Your task to perform on an android device: When is my next meeting? Image 0: 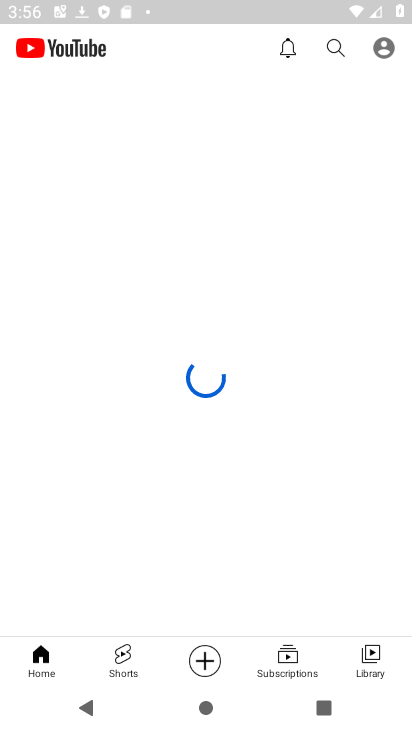
Step 0: press home button
Your task to perform on an android device: When is my next meeting? Image 1: 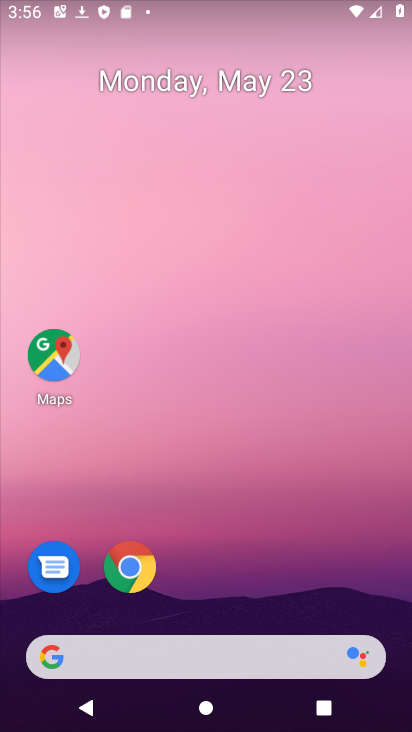
Step 1: drag from (395, 653) to (239, 53)
Your task to perform on an android device: When is my next meeting? Image 2: 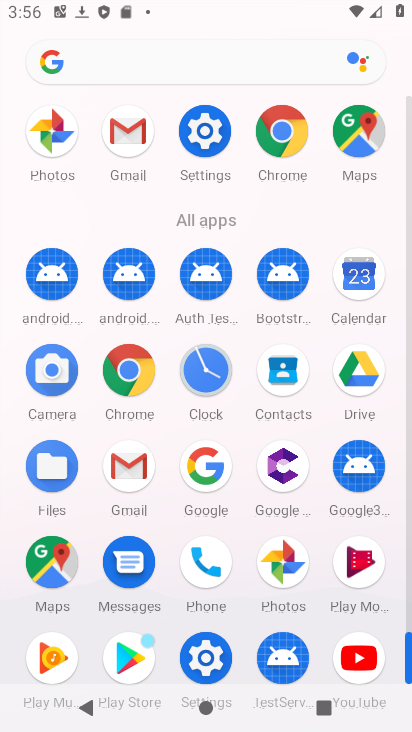
Step 2: click (352, 282)
Your task to perform on an android device: When is my next meeting? Image 3: 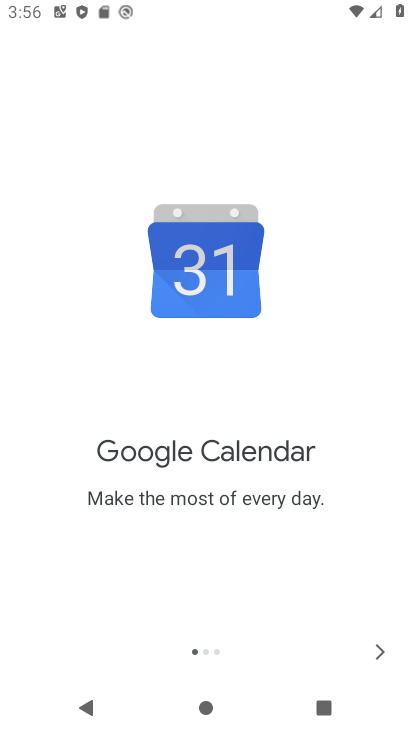
Step 3: click (372, 645)
Your task to perform on an android device: When is my next meeting? Image 4: 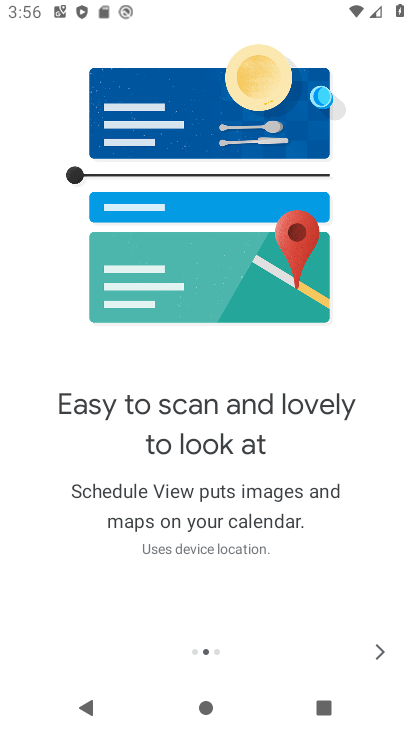
Step 4: click (372, 645)
Your task to perform on an android device: When is my next meeting? Image 5: 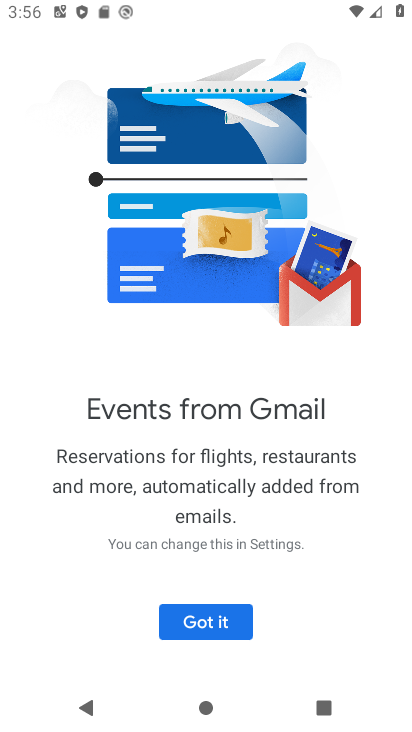
Step 5: click (205, 627)
Your task to perform on an android device: When is my next meeting? Image 6: 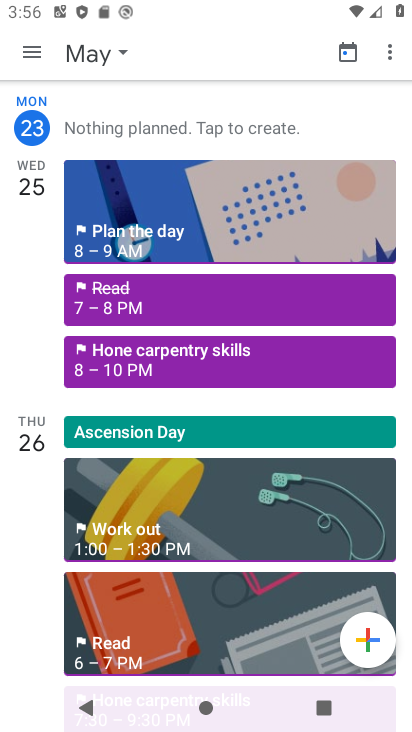
Step 6: click (36, 54)
Your task to perform on an android device: When is my next meeting? Image 7: 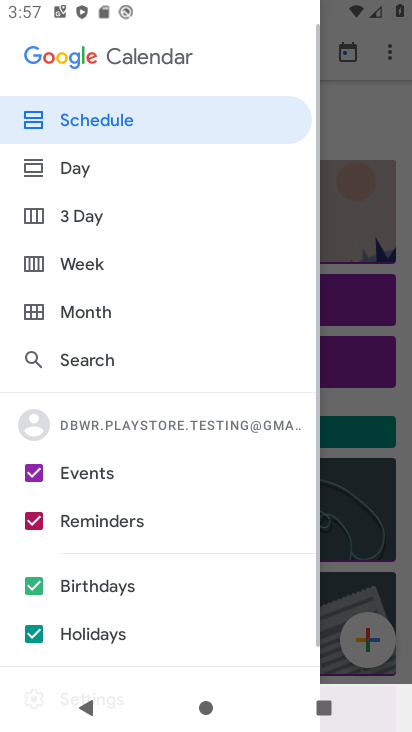
Step 7: click (87, 116)
Your task to perform on an android device: When is my next meeting? Image 8: 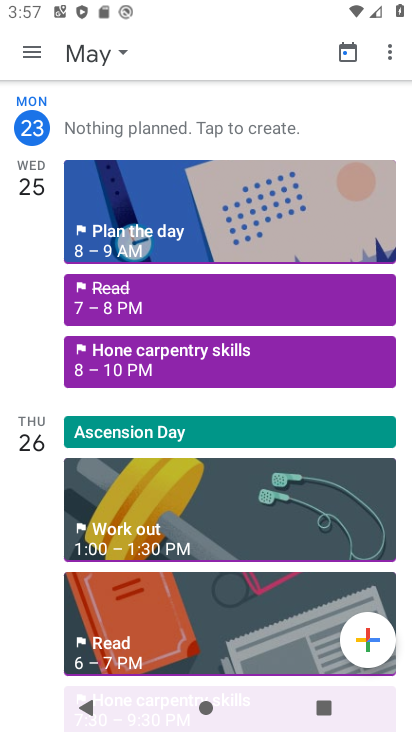
Step 8: task complete